Your task to perform on an android device: open a new tab in the chrome app Image 0: 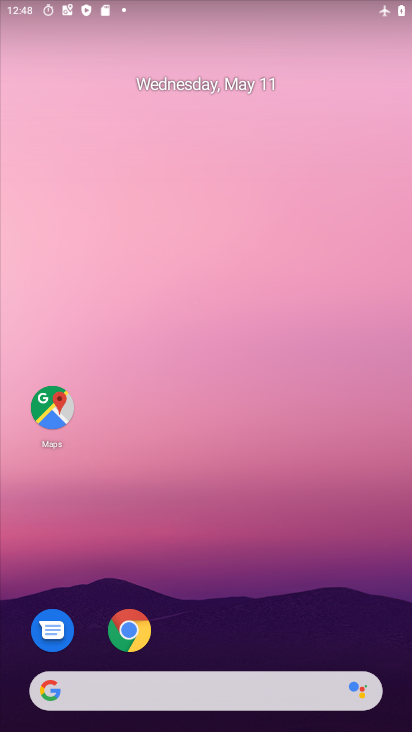
Step 0: drag from (327, 600) to (269, 42)
Your task to perform on an android device: open a new tab in the chrome app Image 1: 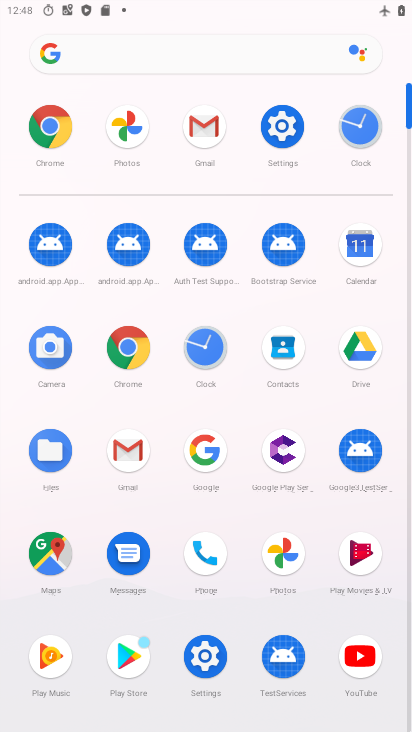
Step 1: click (135, 343)
Your task to perform on an android device: open a new tab in the chrome app Image 2: 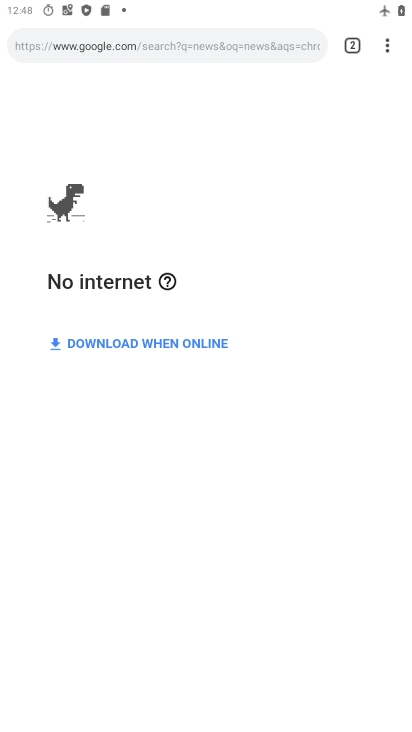
Step 2: click (215, 42)
Your task to perform on an android device: open a new tab in the chrome app Image 3: 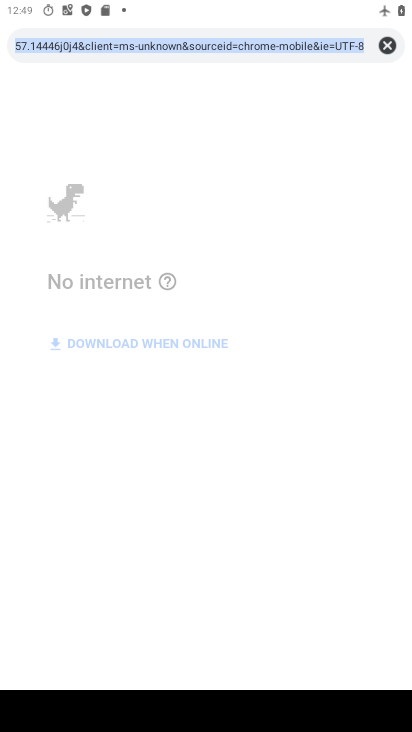
Step 3: click (384, 39)
Your task to perform on an android device: open a new tab in the chrome app Image 4: 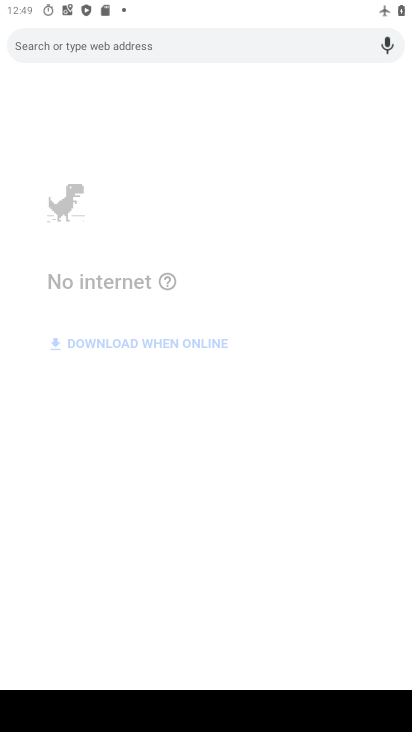
Step 4: press back button
Your task to perform on an android device: open a new tab in the chrome app Image 5: 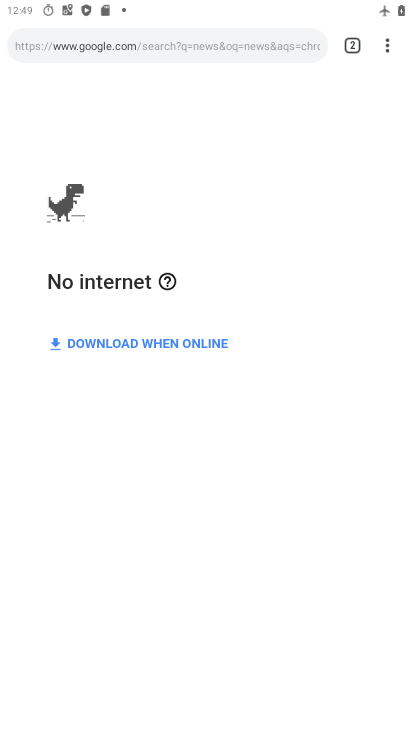
Step 5: click (388, 39)
Your task to perform on an android device: open a new tab in the chrome app Image 6: 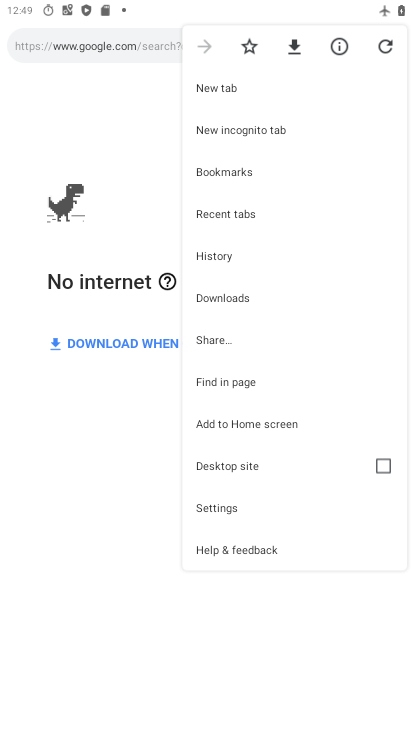
Step 6: click (233, 83)
Your task to perform on an android device: open a new tab in the chrome app Image 7: 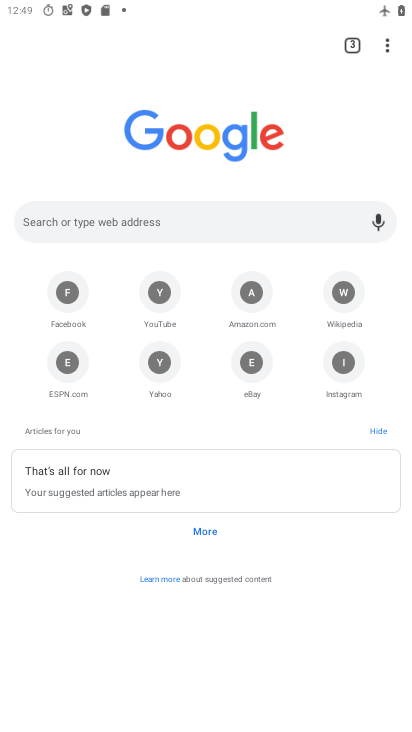
Step 7: task complete